Your task to perform on an android device: open app "WhatsApp Messenger" (install if not already installed) Image 0: 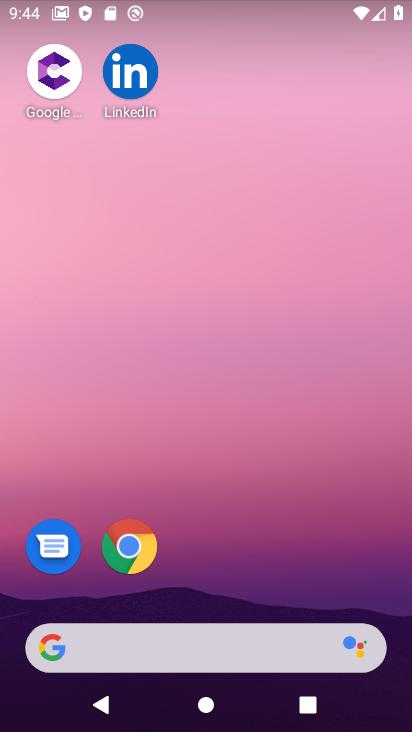
Step 0: drag from (219, 597) to (287, 12)
Your task to perform on an android device: open app "WhatsApp Messenger" (install if not already installed) Image 1: 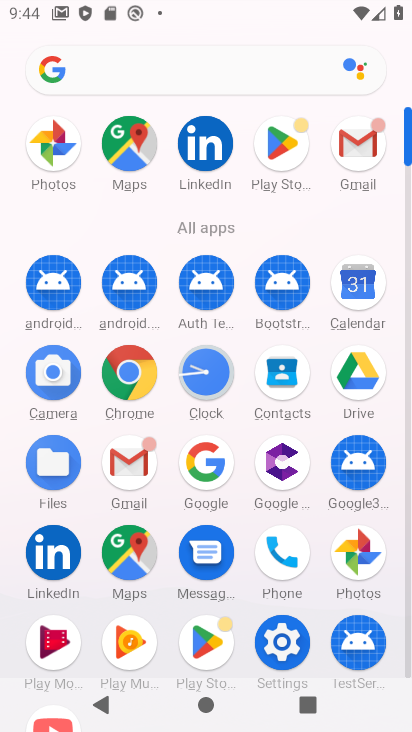
Step 1: click (280, 132)
Your task to perform on an android device: open app "WhatsApp Messenger" (install if not already installed) Image 2: 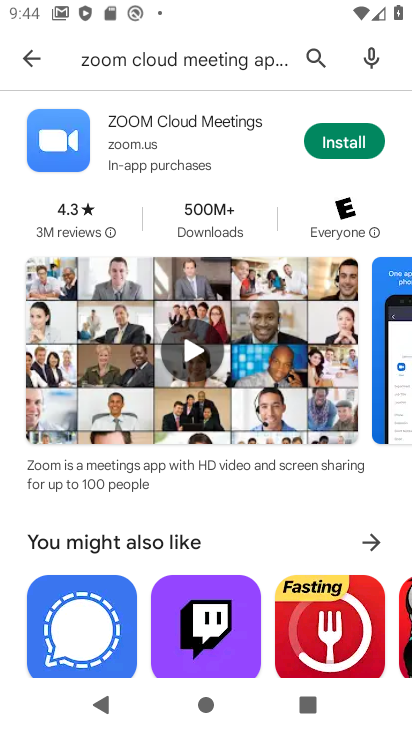
Step 2: click (320, 53)
Your task to perform on an android device: open app "WhatsApp Messenger" (install if not already installed) Image 3: 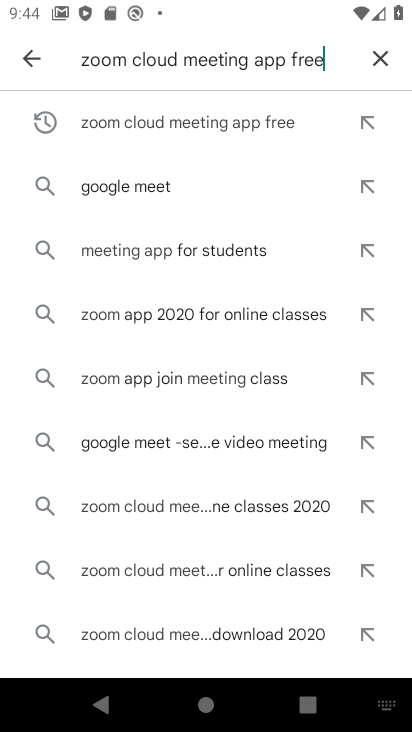
Step 3: click (379, 50)
Your task to perform on an android device: open app "WhatsApp Messenger" (install if not already installed) Image 4: 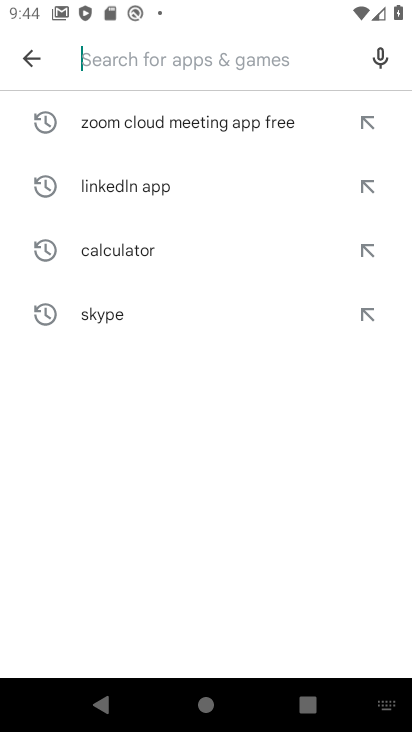
Step 4: click (134, 68)
Your task to perform on an android device: open app "WhatsApp Messenger" (install if not already installed) Image 5: 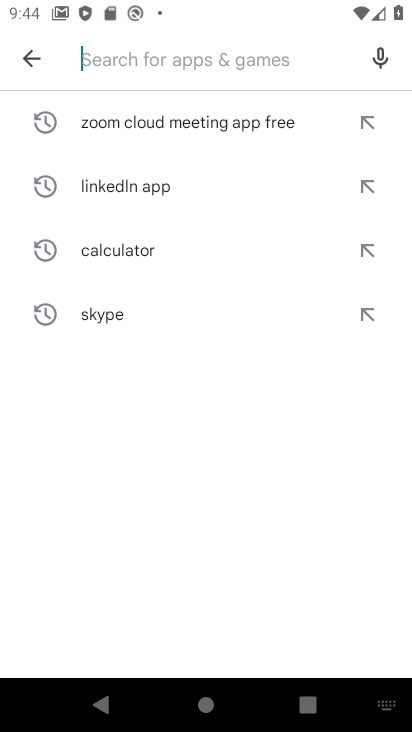
Step 5: type "whatsapp messenger"
Your task to perform on an android device: open app "WhatsApp Messenger" (install if not already installed) Image 6: 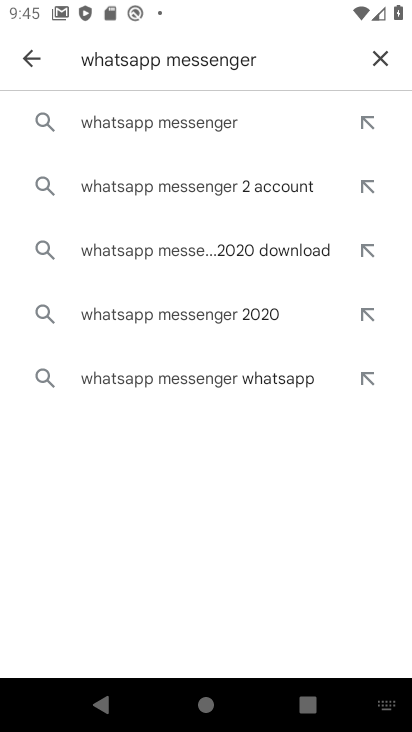
Step 6: click (164, 127)
Your task to perform on an android device: open app "WhatsApp Messenger" (install if not already installed) Image 7: 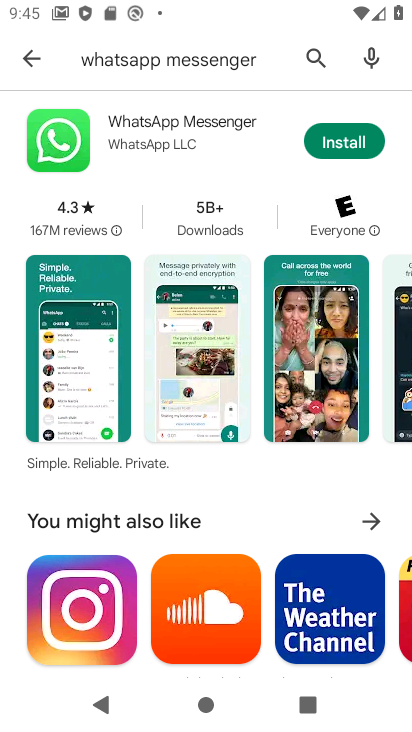
Step 7: click (355, 151)
Your task to perform on an android device: open app "WhatsApp Messenger" (install if not already installed) Image 8: 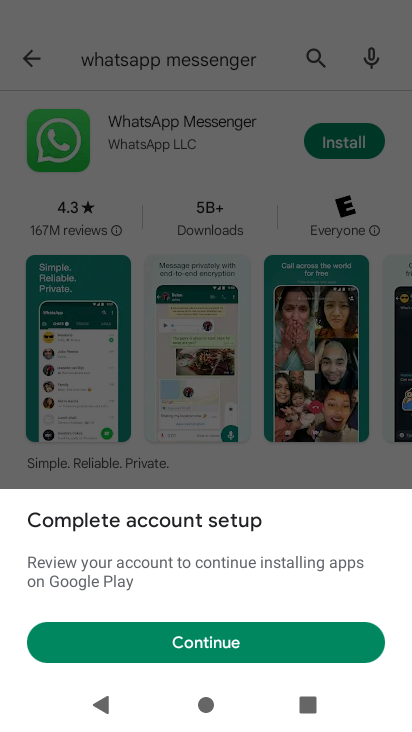
Step 8: click (207, 660)
Your task to perform on an android device: open app "WhatsApp Messenger" (install if not already installed) Image 9: 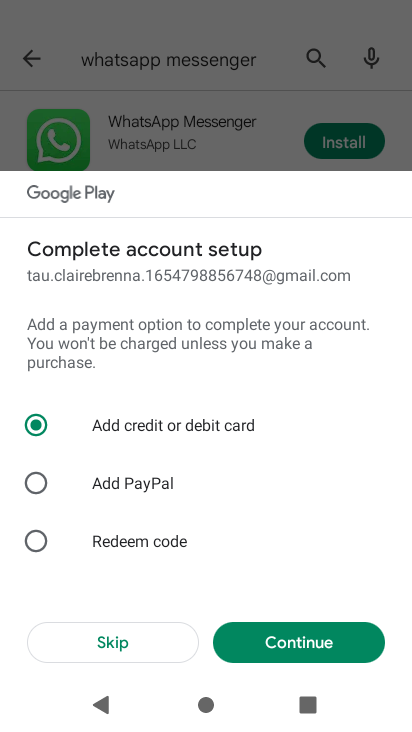
Step 9: click (109, 650)
Your task to perform on an android device: open app "WhatsApp Messenger" (install if not already installed) Image 10: 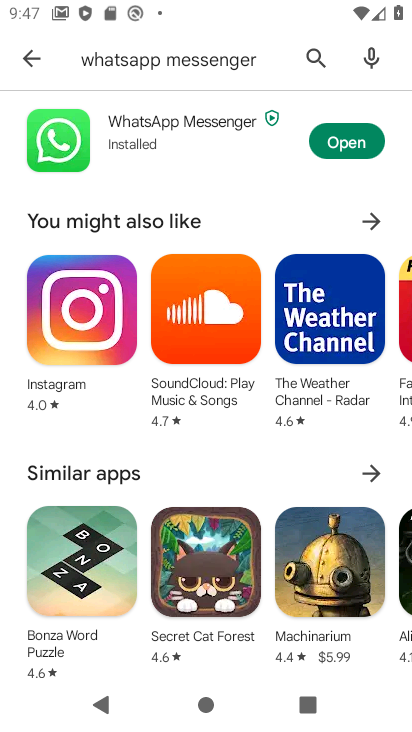
Step 10: click (336, 150)
Your task to perform on an android device: open app "WhatsApp Messenger" (install if not already installed) Image 11: 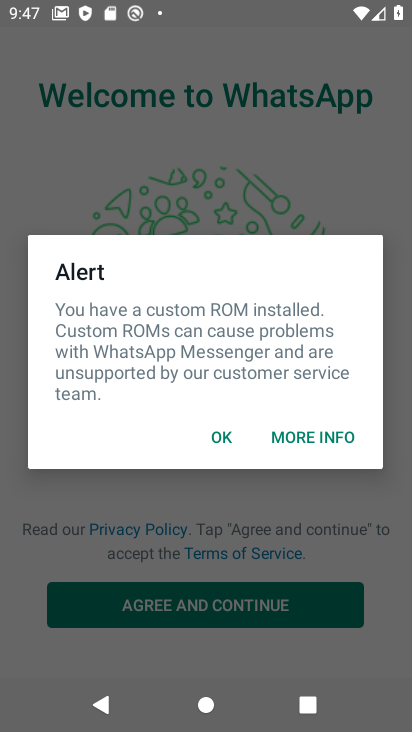
Step 11: click (213, 434)
Your task to perform on an android device: open app "WhatsApp Messenger" (install if not already installed) Image 12: 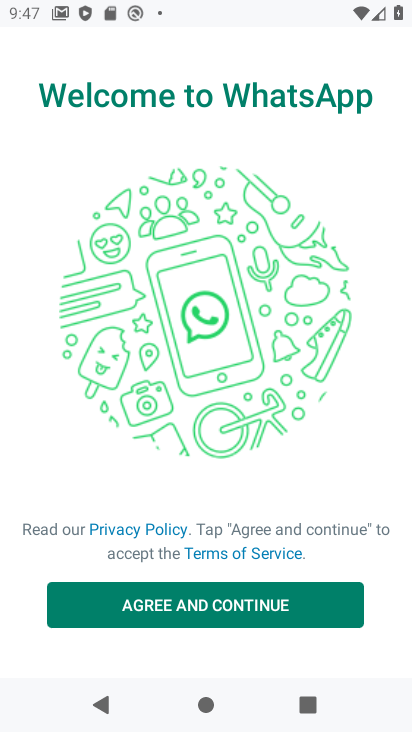
Step 12: task complete